Your task to perform on an android device: Open calendar and show me the third week of next month Image 0: 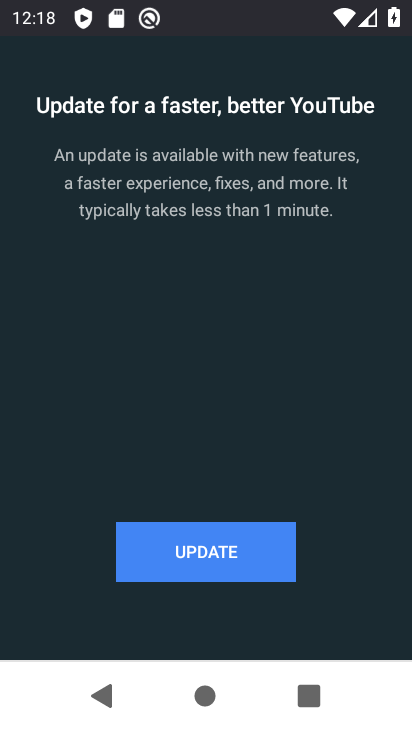
Step 0: press home button
Your task to perform on an android device: Open calendar and show me the third week of next month Image 1: 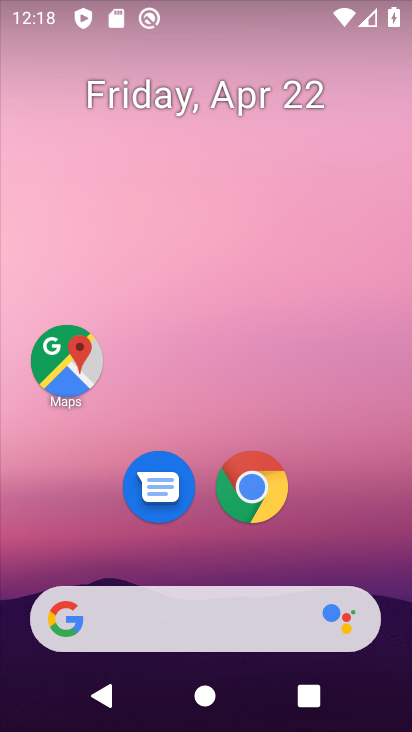
Step 1: drag from (360, 466) to (409, 76)
Your task to perform on an android device: Open calendar and show me the third week of next month Image 2: 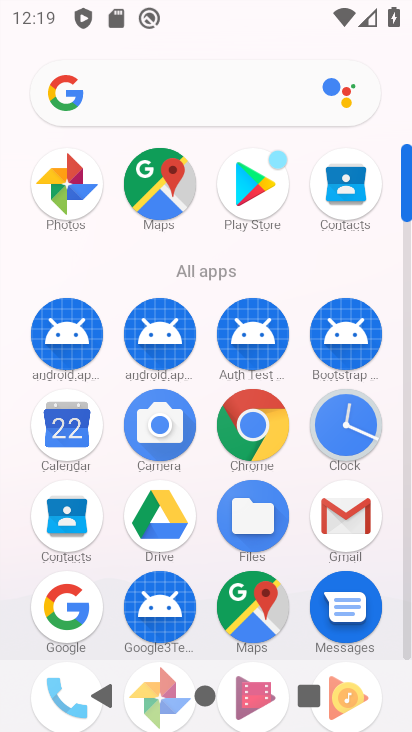
Step 2: click (75, 430)
Your task to perform on an android device: Open calendar and show me the third week of next month Image 3: 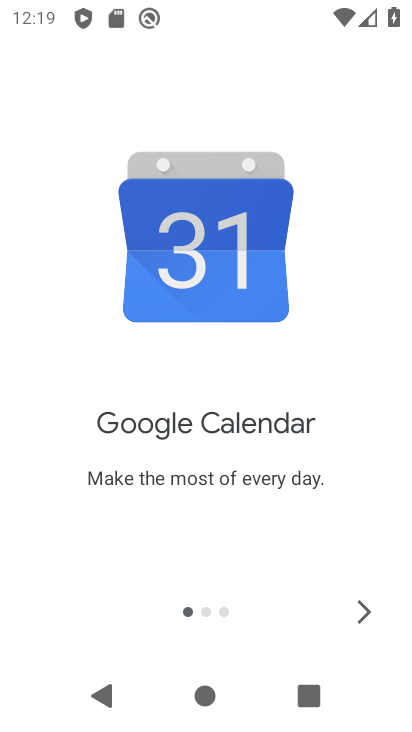
Step 3: click (357, 604)
Your task to perform on an android device: Open calendar and show me the third week of next month Image 4: 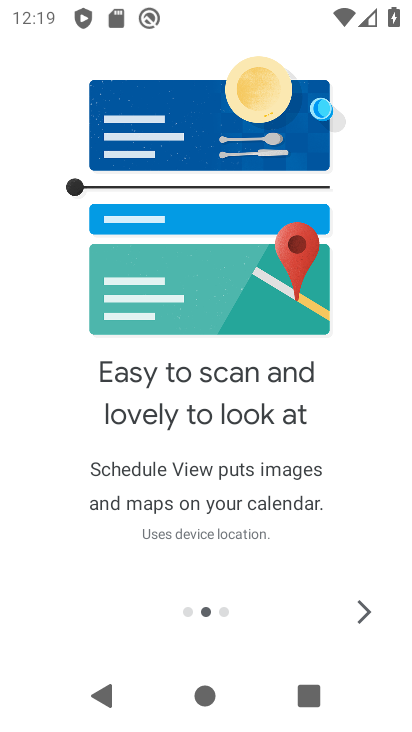
Step 4: click (357, 604)
Your task to perform on an android device: Open calendar and show me the third week of next month Image 5: 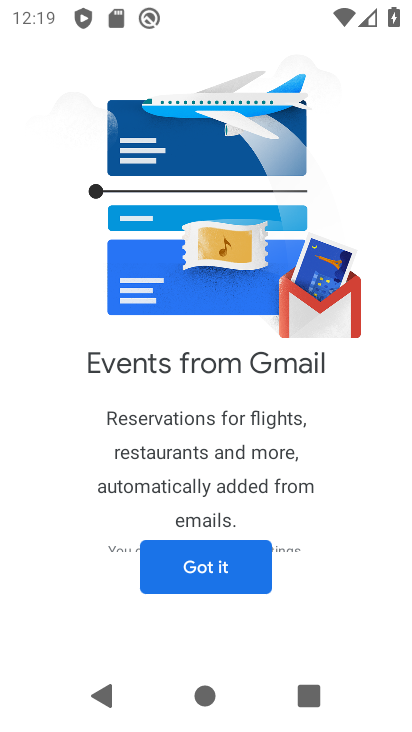
Step 5: click (223, 577)
Your task to perform on an android device: Open calendar and show me the third week of next month Image 6: 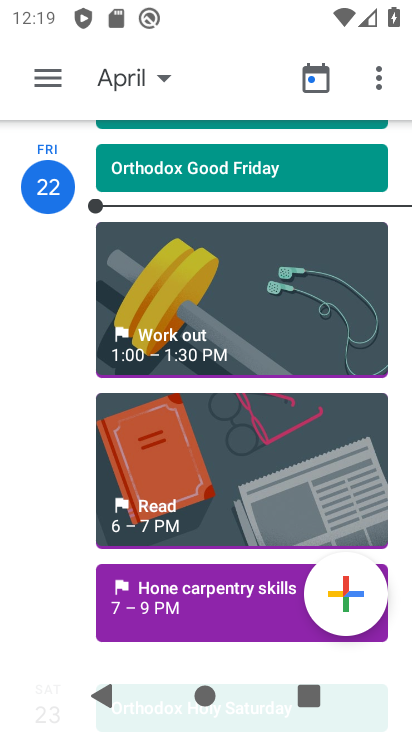
Step 6: click (146, 78)
Your task to perform on an android device: Open calendar and show me the third week of next month Image 7: 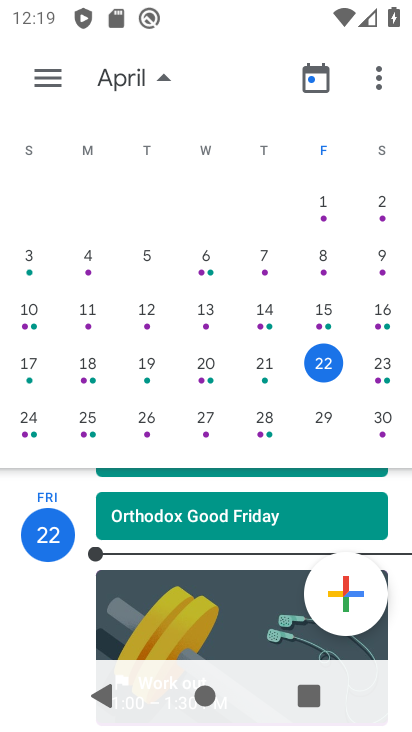
Step 7: click (275, 373)
Your task to perform on an android device: Open calendar and show me the third week of next month Image 8: 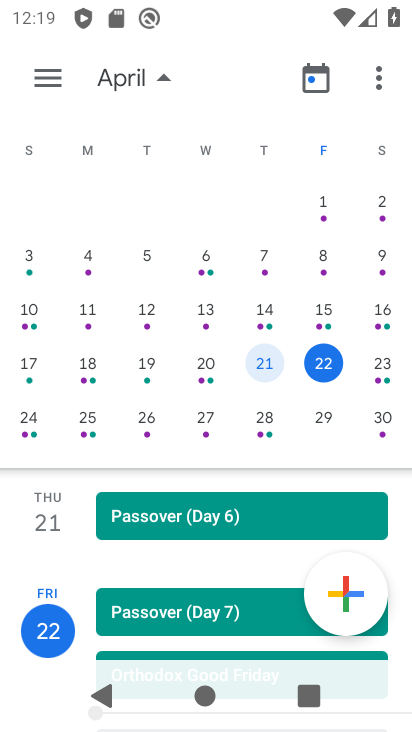
Step 8: task complete